Your task to perform on an android device: Show me productivity apps on the Play Store Image 0: 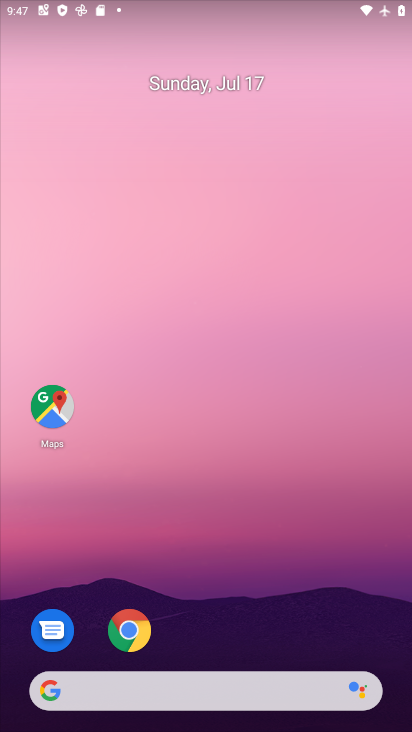
Step 0: drag from (207, 629) to (213, 309)
Your task to perform on an android device: Show me productivity apps on the Play Store Image 1: 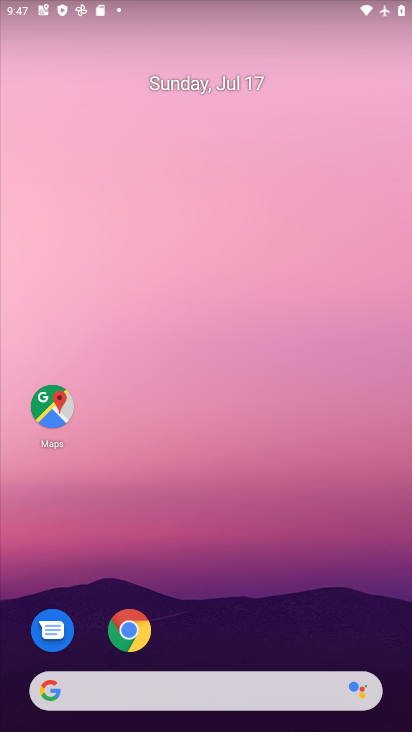
Step 1: drag from (268, 631) to (276, 141)
Your task to perform on an android device: Show me productivity apps on the Play Store Image 2: 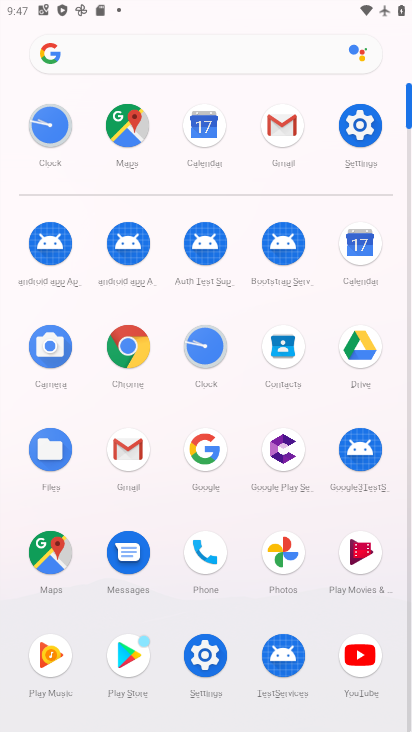
Step 2: click (122, 657)
Your task to perform on an android device: Show me productivity apps on the Play Store Image 3: 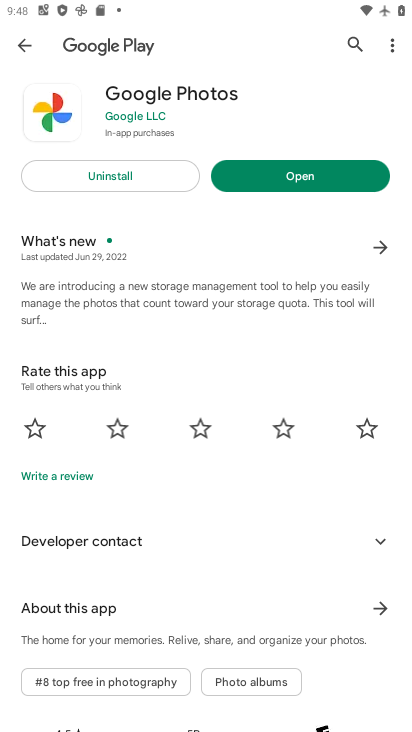
Step 3: click (27, 47)
Your task to perform on an android device: Show me productivity apps on the Play Store Image 4: 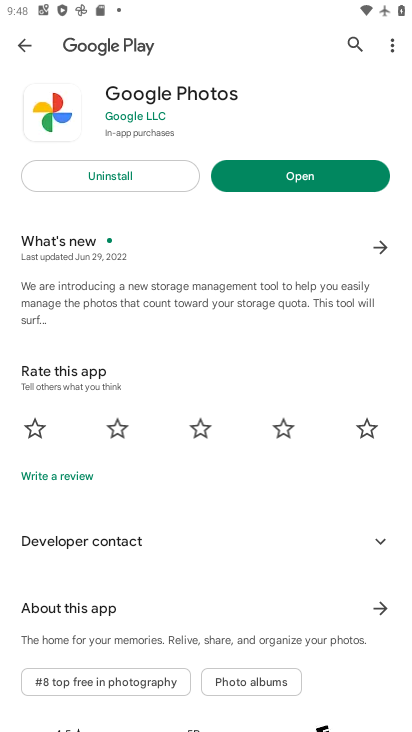
Step 4: click (27, 47)
Your task to perform on an android device: Show me productivity apps on the Play Store Image 5: 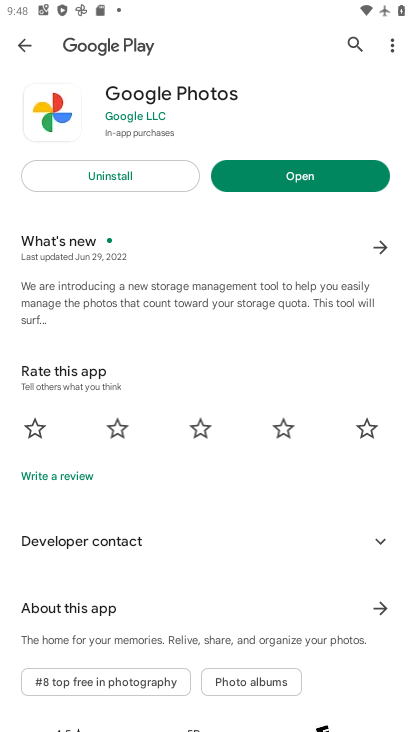
Step 5: click (27, 47)
Your task to perform on an android device: Show me productivity apps on the Play Store Image 6: 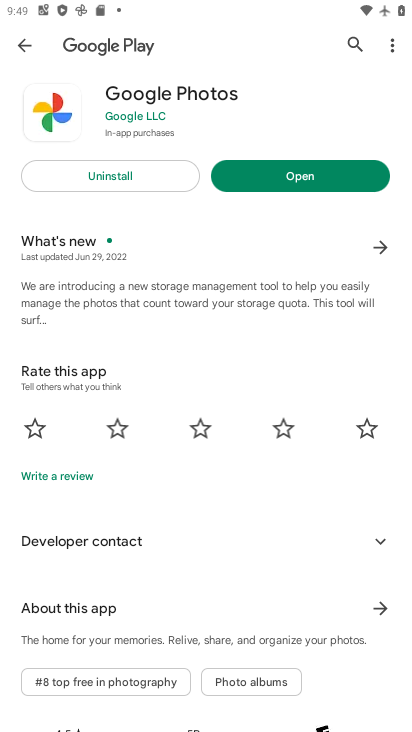
Step 6: task complete